Your task to perform on an android device: remove spam from my inbox in the gmail app Image 0: 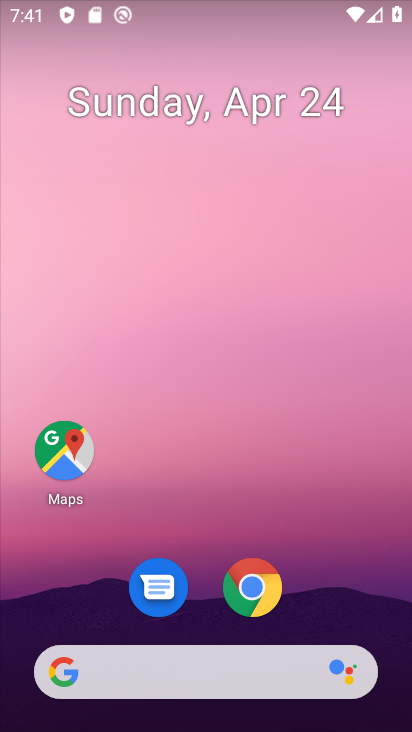
Step 0: drag from (365, 559) to (368, 113)
Your task to perform on an android device: remove spam from my inbox in the gmail app Image 1: 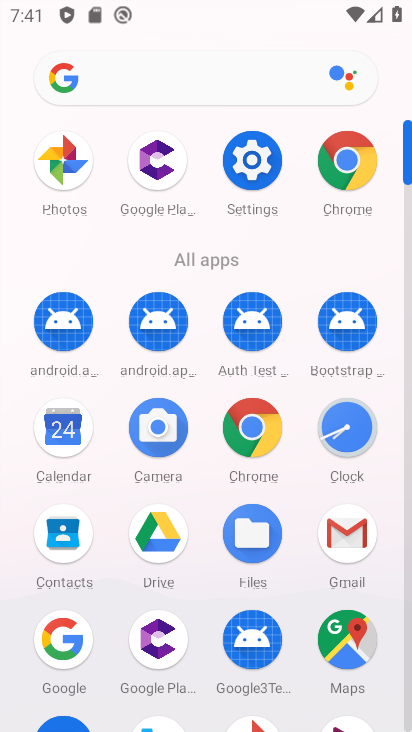
Step 1: click (344, 534)
Your task to perform on an android device: remove spam from my inbox in the gmail app Image 2: 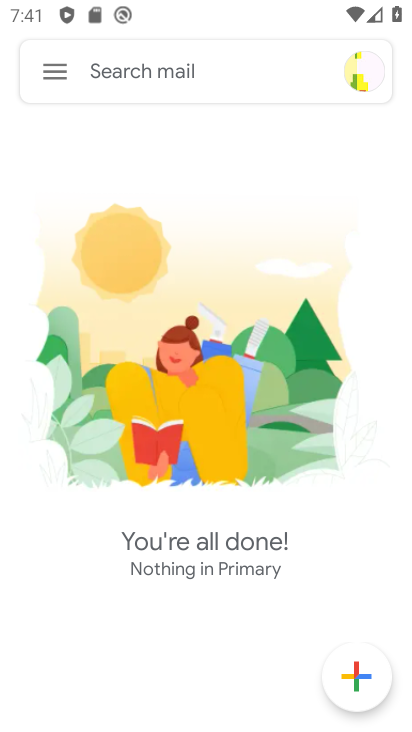
Step 2: click (51, 69)
Your task to perform on an android device: remove spam from my inbox in the gmail app Image 3: 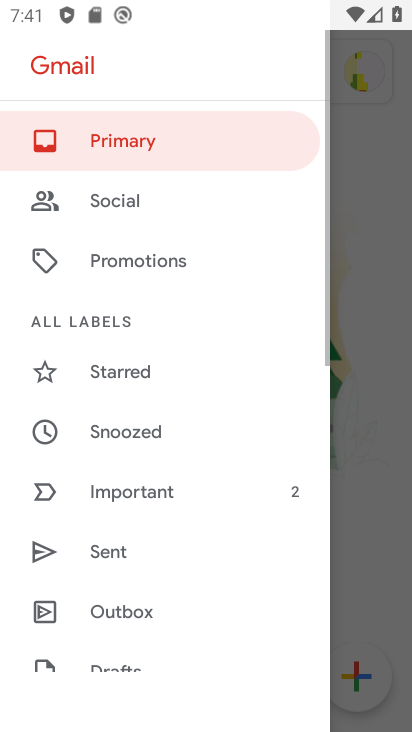
Step 3: drag from (170, 620) to (238, 238)
Your task to perform on an android device: remove spam from my inbox in the gmail app Image 4: 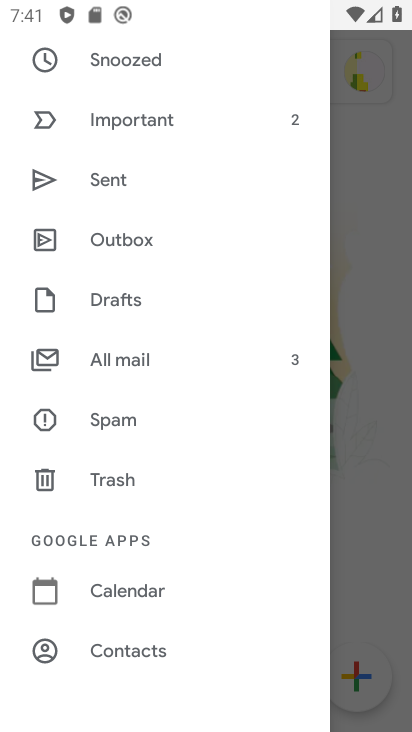
Step 4: drag from (204, 609) to (253, 286)
Your task to perform on an android device: remove spam from my inbox in the gmail app Image 5: 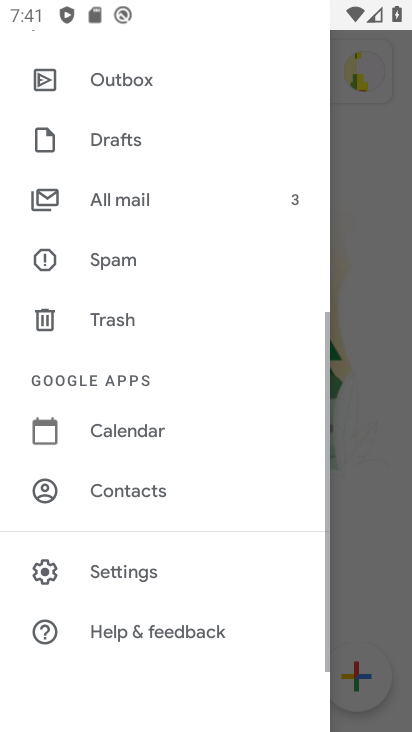
Step 5: click (125, 252)
Your task to perform on an android device: remove spam from my inbox in the gmail app Image 6: 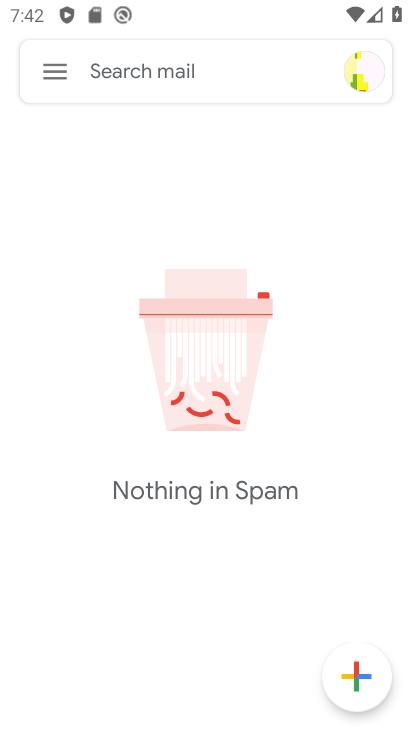
Step 6: click (54, 68)
Your task to perform on an android device: remove spam from my inbox in the gmail app Image 7: 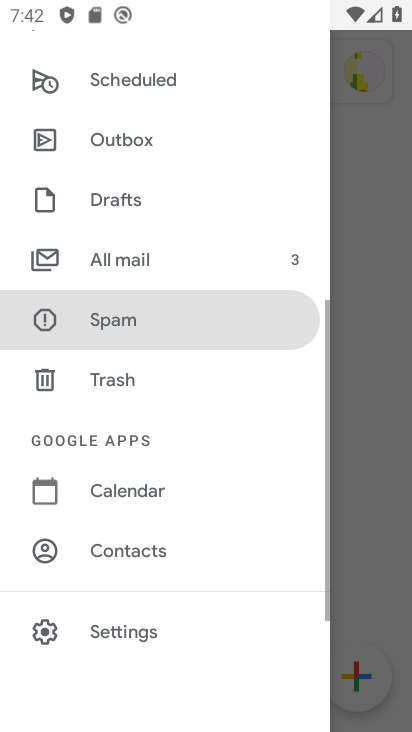
Step 7: task complete